Your task to perform on an android device: open a new tab in the chrome app Image 0: 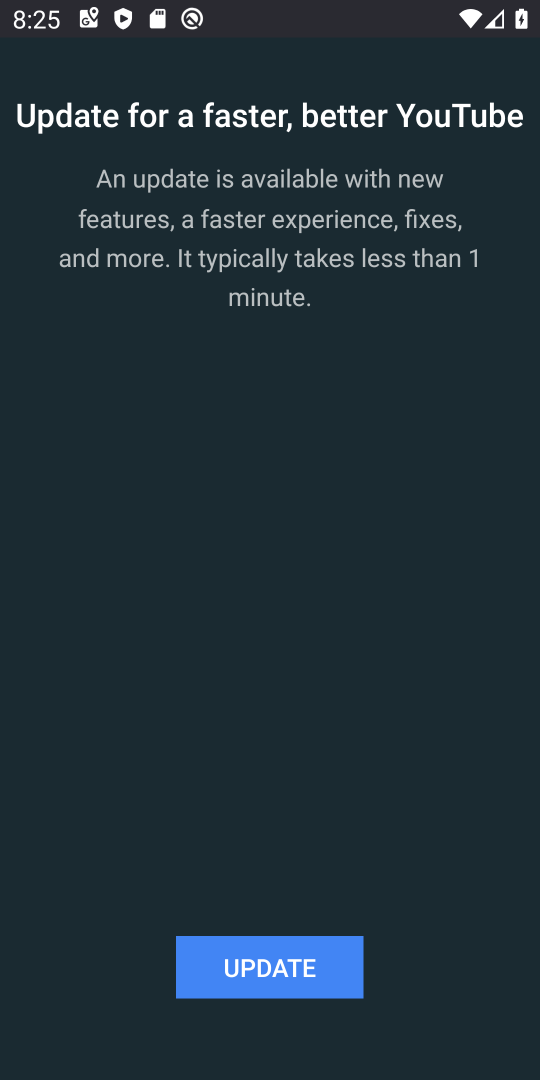
Step 0: press home button
Your task to perform on an android device: open a new tab in the chrome app Image 1: 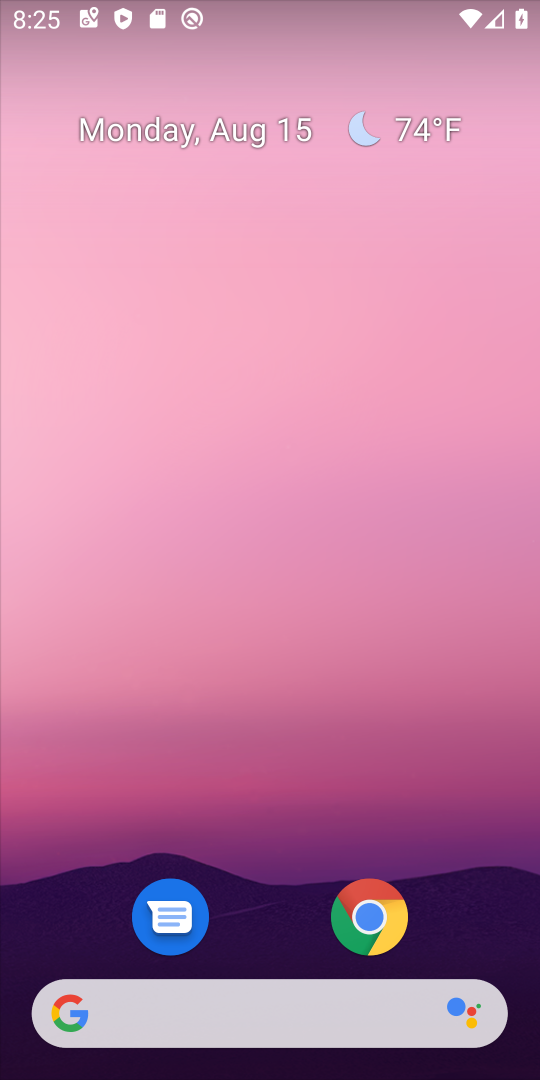
Step 1: click (368, 909)
Your task to perform on an android device: open a new tab in the chrome app Image 2: 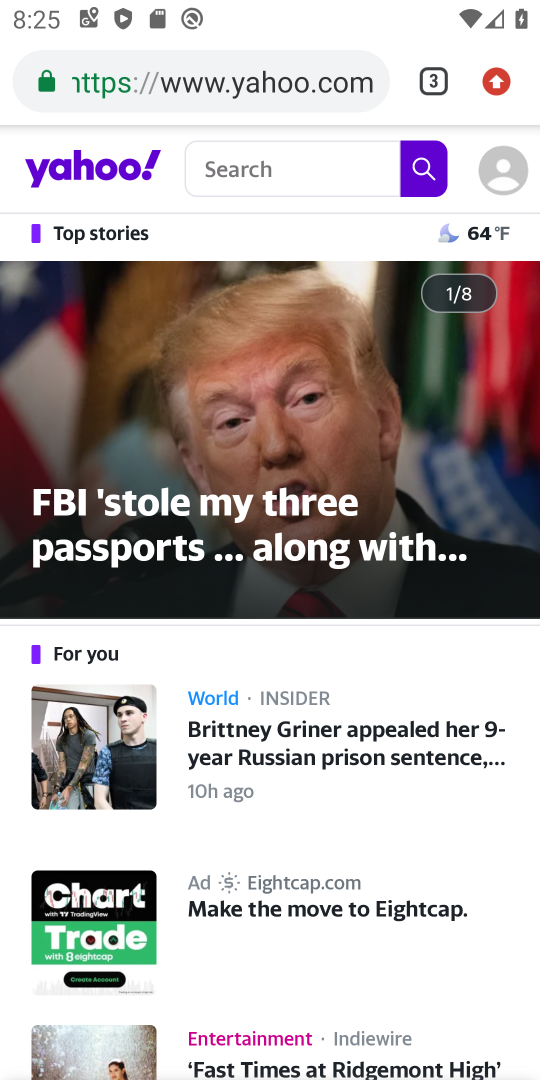
Step 2: click (499, 86)
Your task to perform on an android device: open a new tab in the chrome app Image 3: 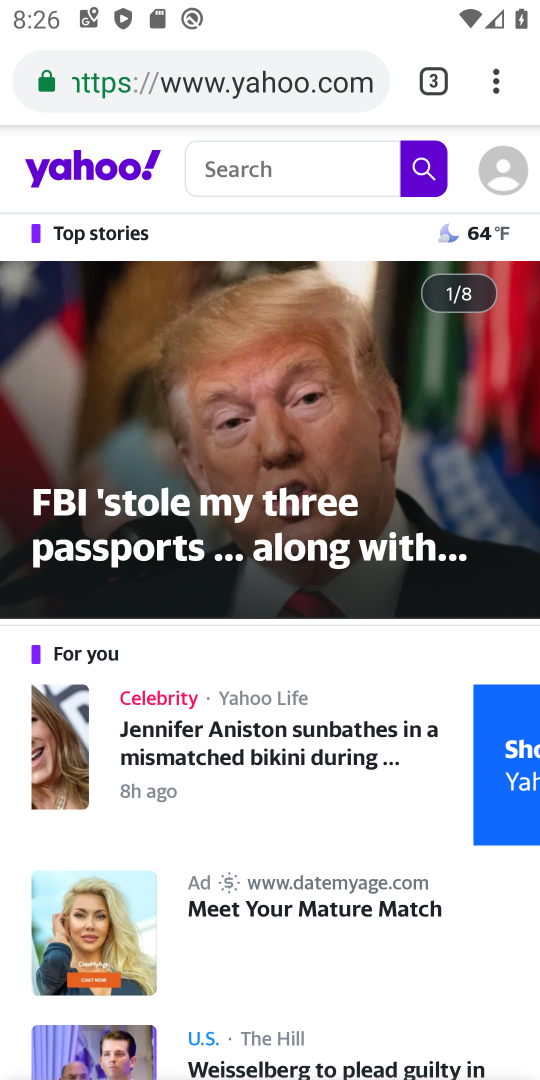
Step 3: click (495, 78)
Your task to perform on an android device: open a new tab in the chrome app Image 4: 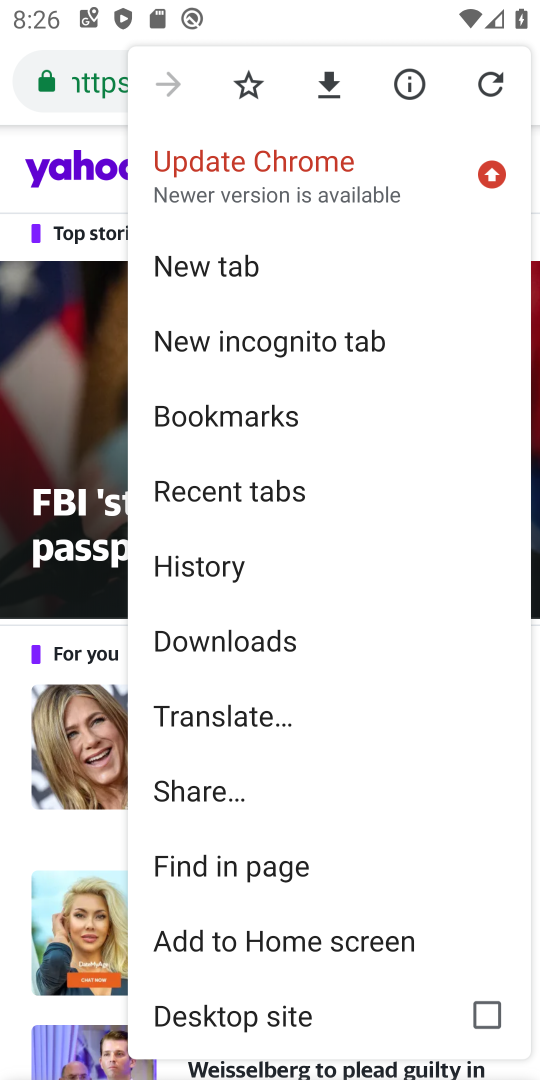
Step 4: click (281, 267)
Your task to perform on an android device: open a new tab in the chrome app Image 5: 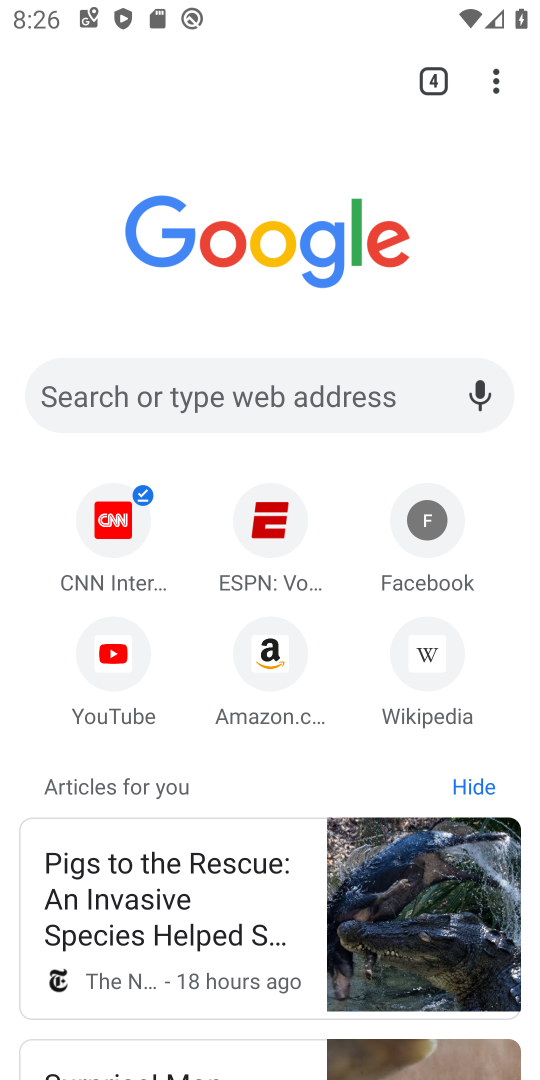
Step 5: task complete